Your task to perform on an android device: Open maps Image 0: 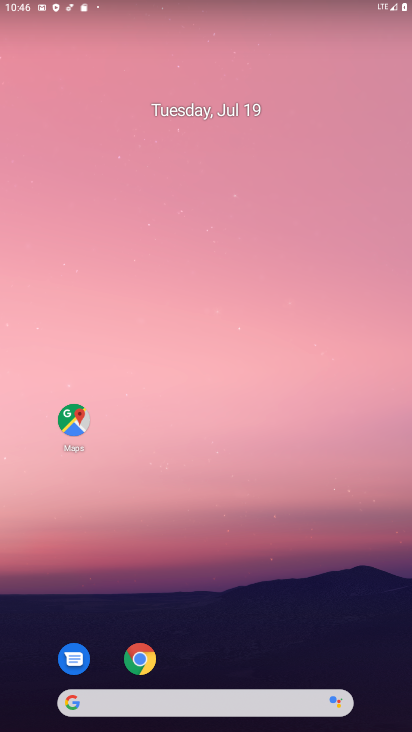
Step 0: click (79, 422)
Your task to perform on an android device: Open maps Image 1: 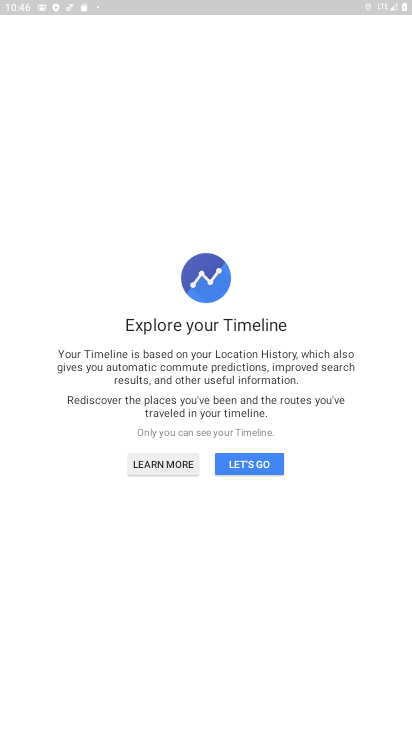
Step 1: click (237, 465)
Your task to perform on an android device: Open maps Image 2: 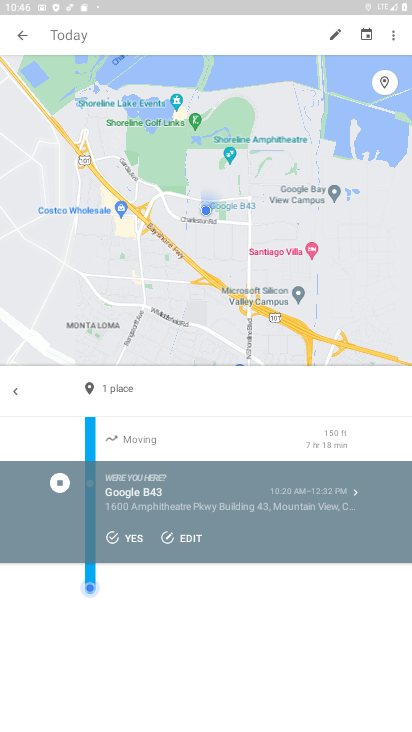
Step 2: task complete